Your task to perform on an android device: Go to privacy settings Image 0: 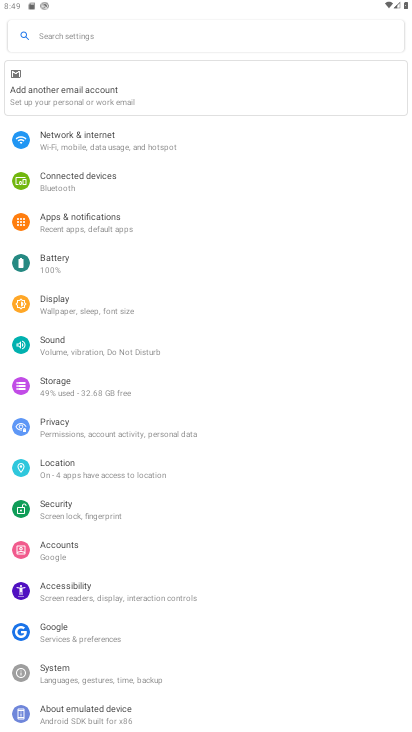
Step 0: click (50, 419)
Your task to perform on an android device: Go to privacy settings Image 1: 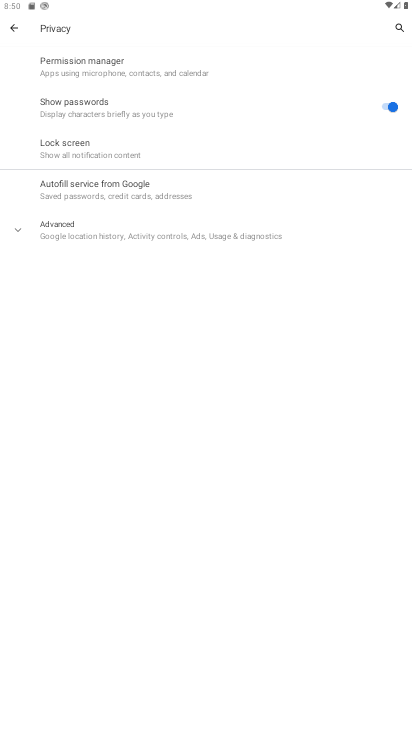
Step 1: task complete